Your task to perform on an android device: What is the news today? Image 0: 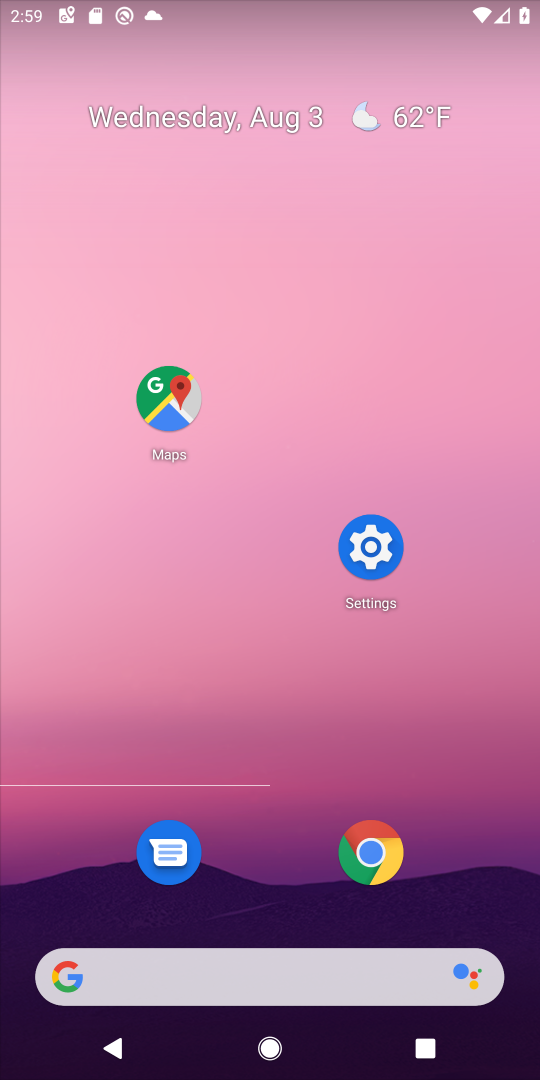
Step 0: click (182, 972)
Your task to perform on an android device: What is the news today? Image 1: 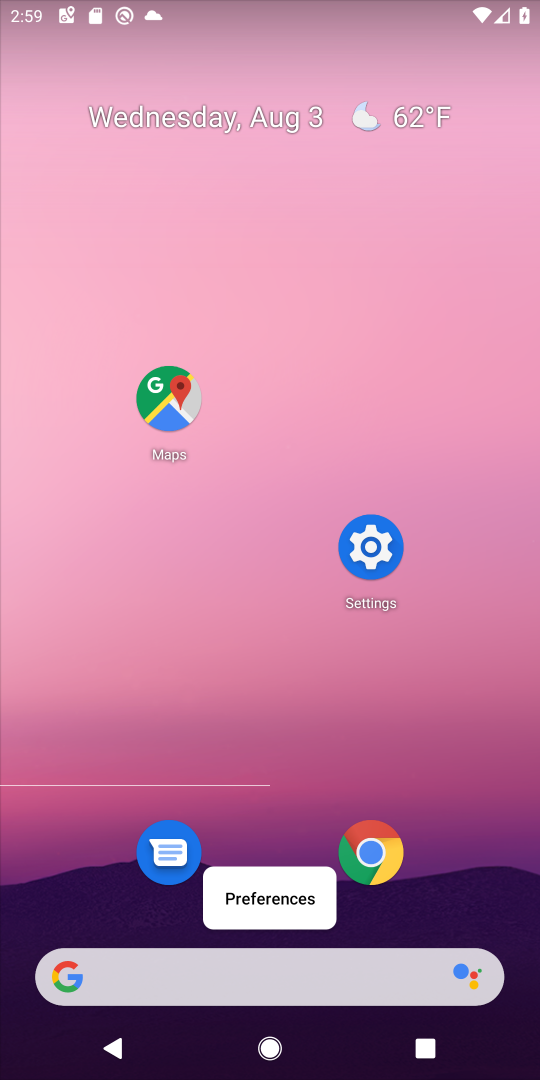
Step 1: click (153, 985)
Your task to perform on an android device: What is the news today? Image 2: 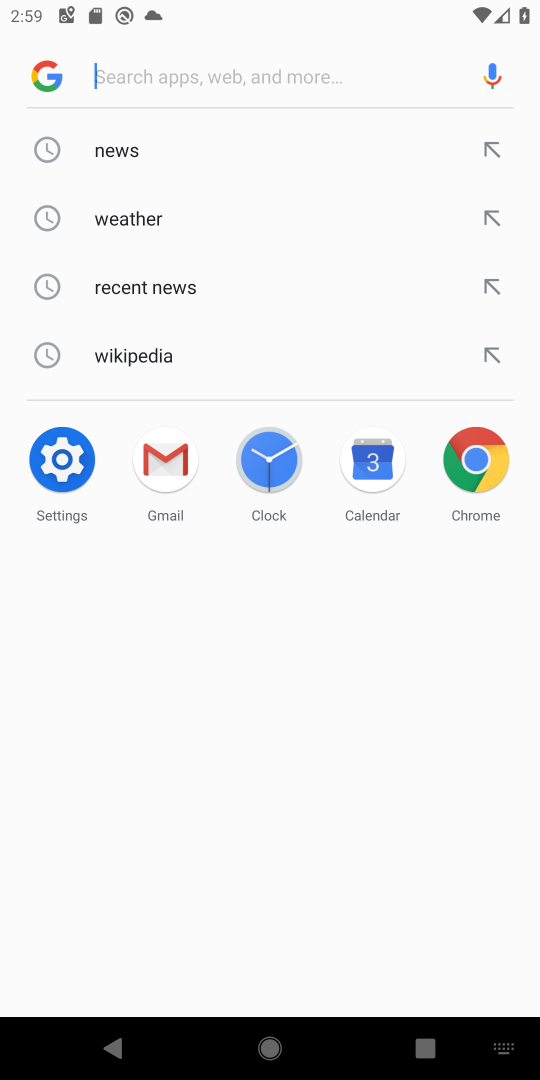
Step 2: click (114, 145)
Your task to perform on an android device: What is the news today? Image 3: 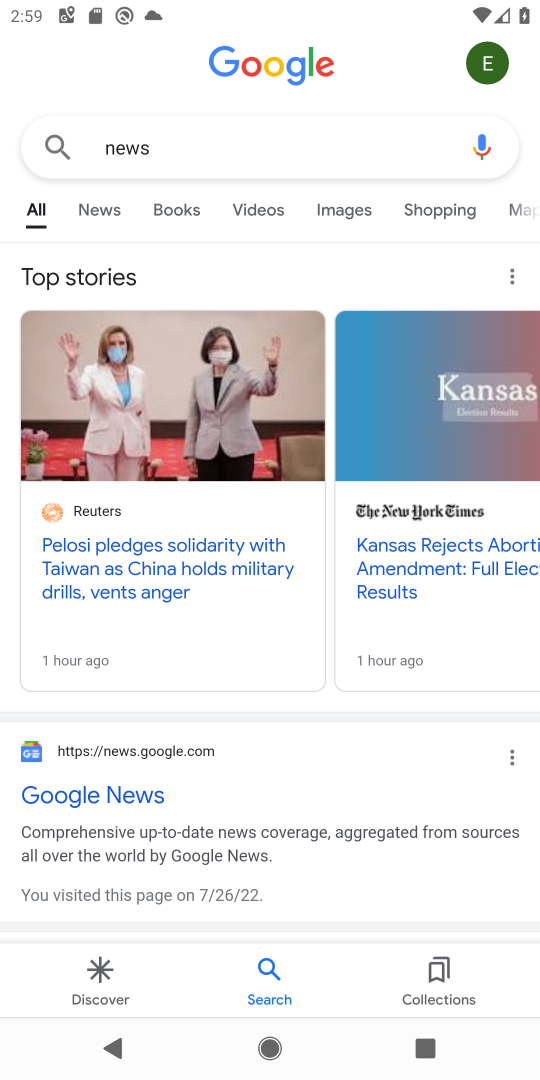
Step 3: click (100, 208)
Your task to perform on an android device: What is the news today? Image 4: 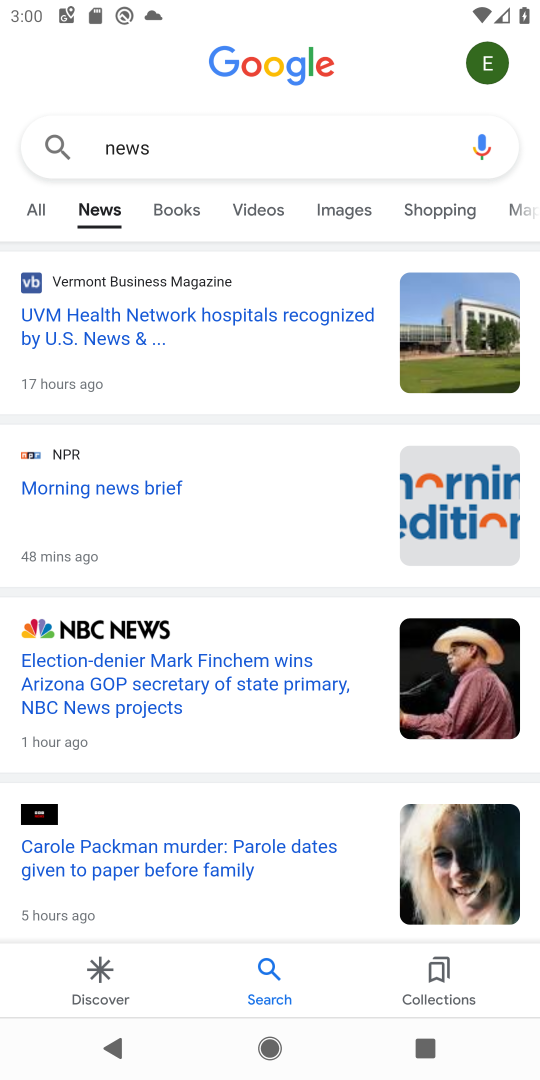
Step 4: task complete